Your task to perform on an android device: install app "ZOOM Cloud Meetings" Image 0: 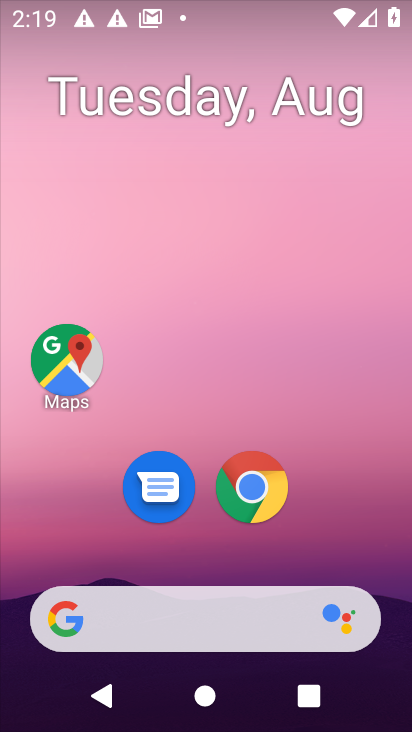
Step 0: drag from (185, 621) to (257, 118)
Your task to perform on an android device: install app "ZOOM Cloud Meetings" Image 1: 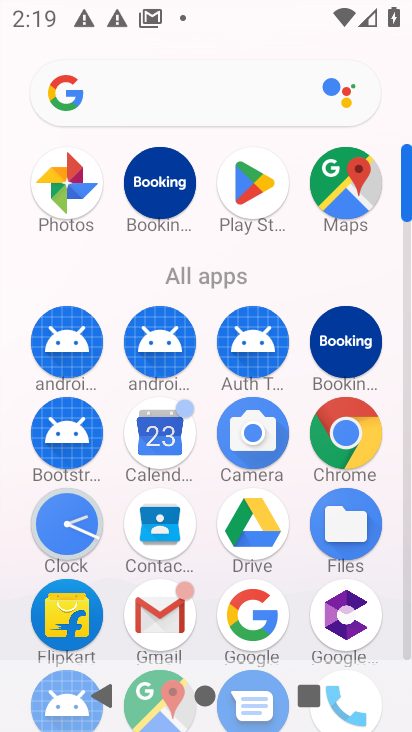
Step 1: click (255, 187)
Your task to perform on an android device: install app "ZOOM Cloud Meetings" Image 2: 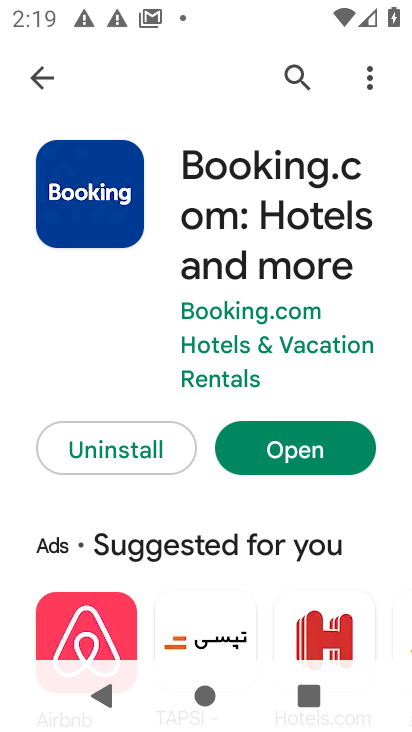
Step 2: press back button
Your task to perform on an android device: install app "ZOOM Cloud Meetings" Image 3: 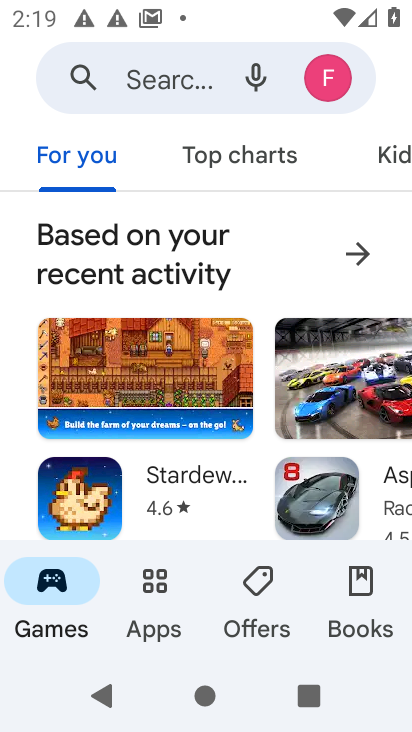
Step 3: click (179, 92)
Your task to perform on an android device: install app "ZOOM Cloud Meetings" Image 4: 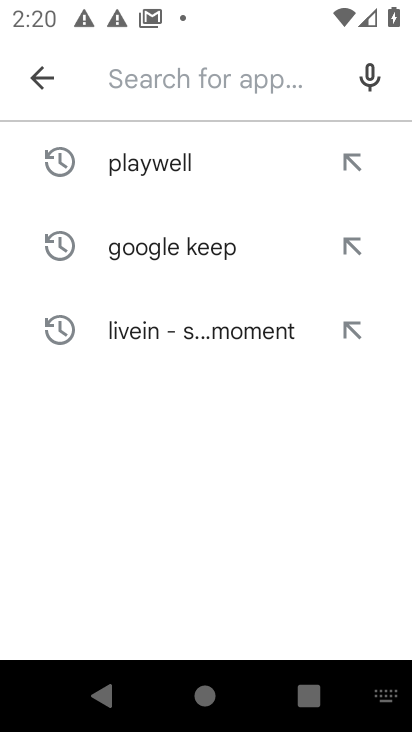
Step 4: type "ZOOM Cloud Meeting"
Your task to perform on an android device: install app "ZOOM Cloud Meetings" Image 5: 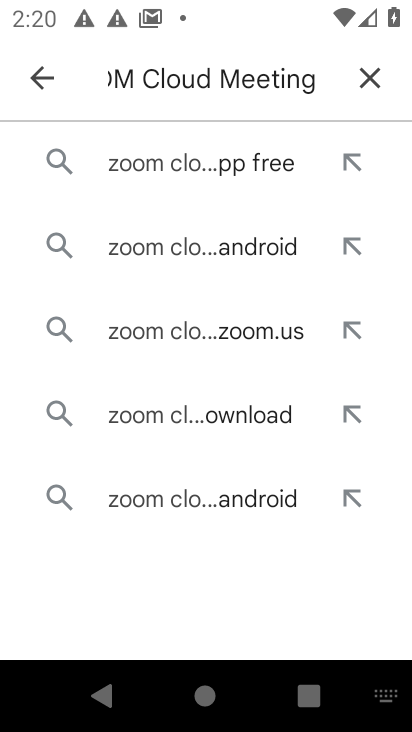
Step 5: click (184, 174)
Your task to perform on an android device: install app "ZOOM Cloud Meetings" Image 6: 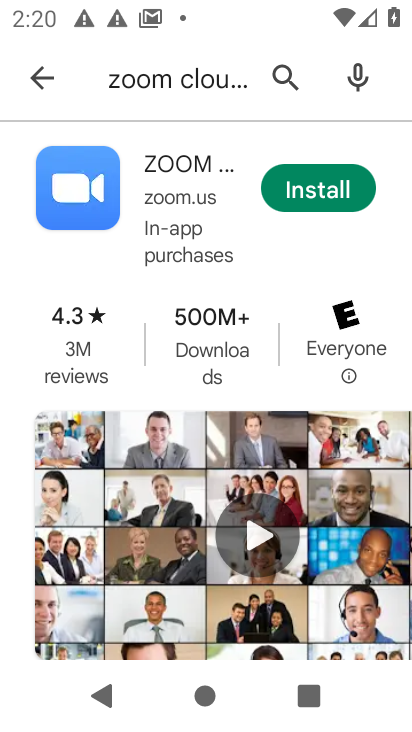
Step 6: click (311, 192)
Your task to perform on an android device: install app "ZOOM Cloud Meetings" Image 7: 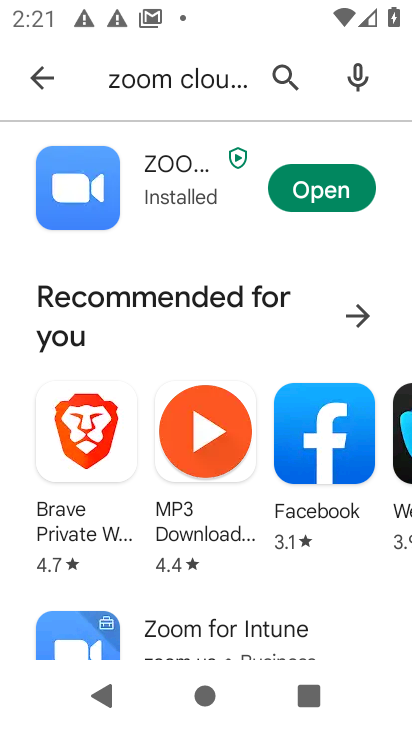
Step 7: task complete